Your task to perform on an android device: clear all cookies in the chrome app Image 0: 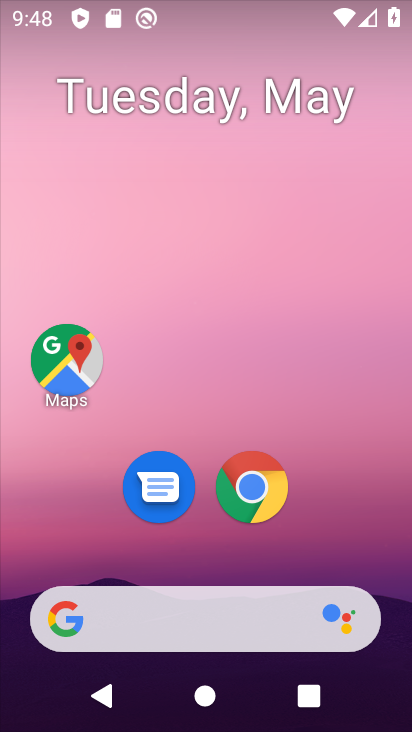
Step 0: drag from (213, 541) to (284, 96)
Your task to perform on an android device: clear all cookies in the chrome app Image 1: 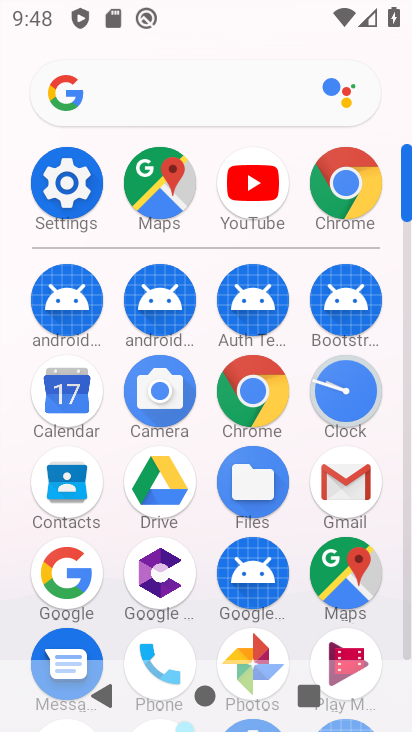
Step 1: click (345, 177)
Your task to perform on an android device: clear all cookies in the chrome app Image 2: 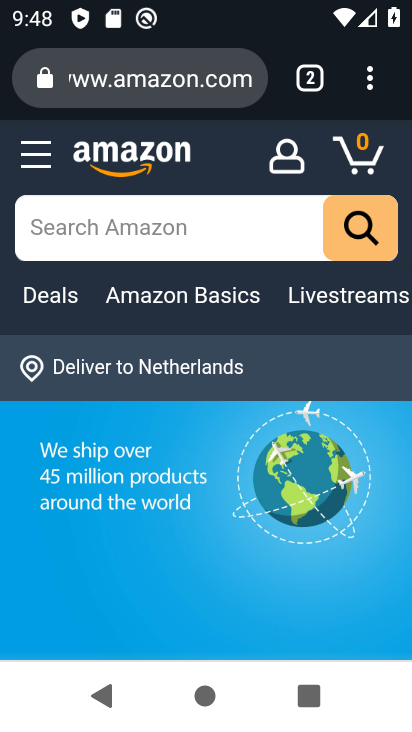
Step 2: drag from (243, 573) to (255, 442)
Your task to perform on an android device: clear all cookies in the chrome app Image 3: 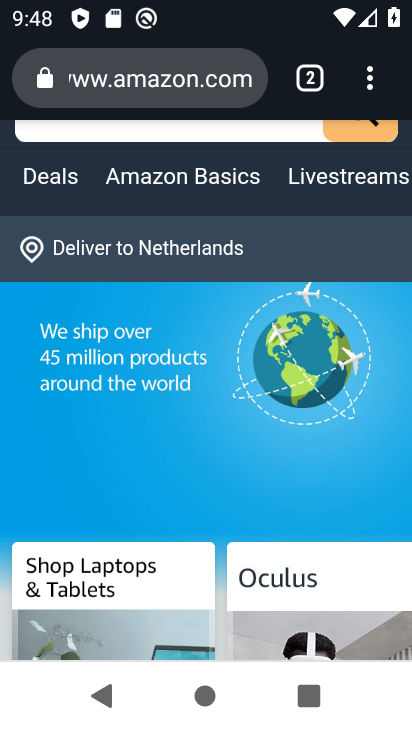
Step 3: click (361, 77)
Your task to perform on an android device: clear all cookies in the chrome app Image 4: 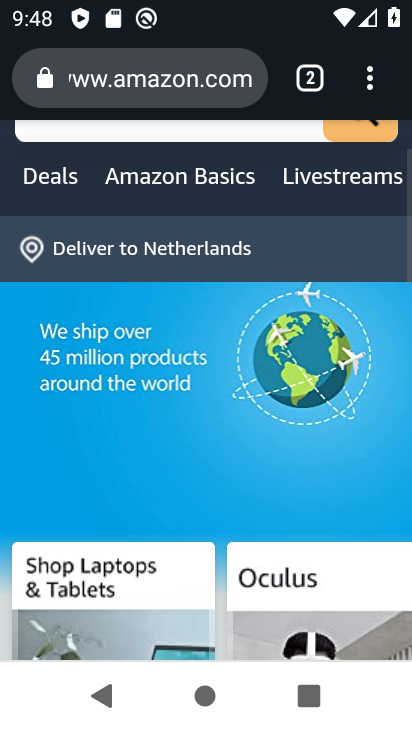
Step 4: click (358, 87)
Your task to perform on an android device: clear all cookies in the chrome app Image 5: 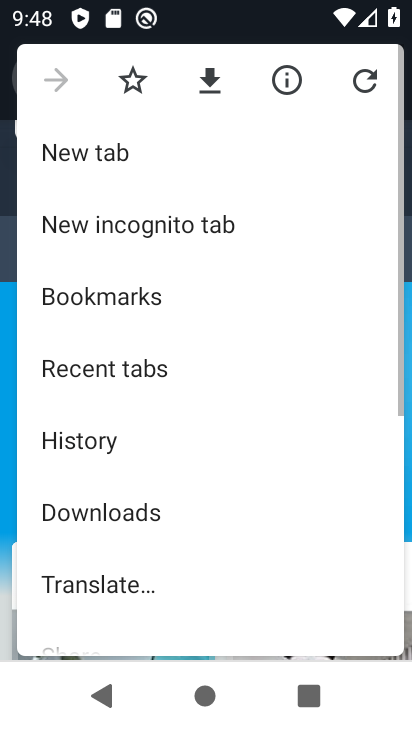
Step 5: drag from (179, 521) to (197, 331)
Your task to perform on an android device: clear all cookies in the chrome app Image 6: 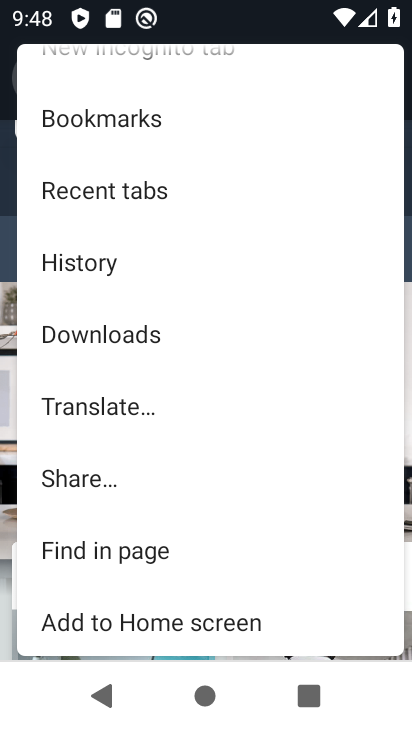
Step 6: drag from (152, 576) to (246, 268)
Your task to perform on an android device: clear all cookies in the chrome app Image 7: 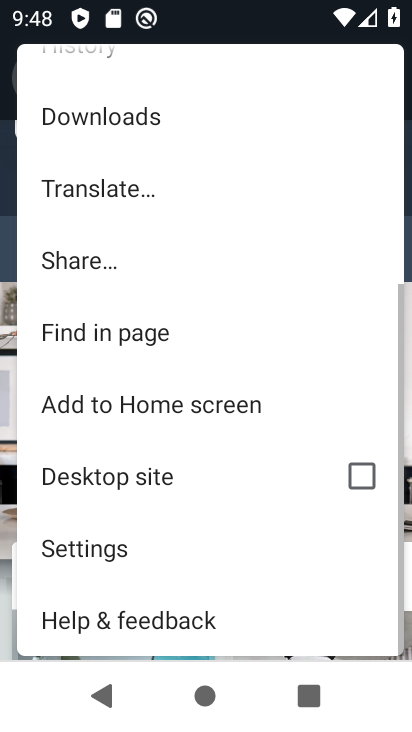
Step 7: click (138, 545)
Your task to perform on an android device: clear all cookies in the chrome app Image 8: 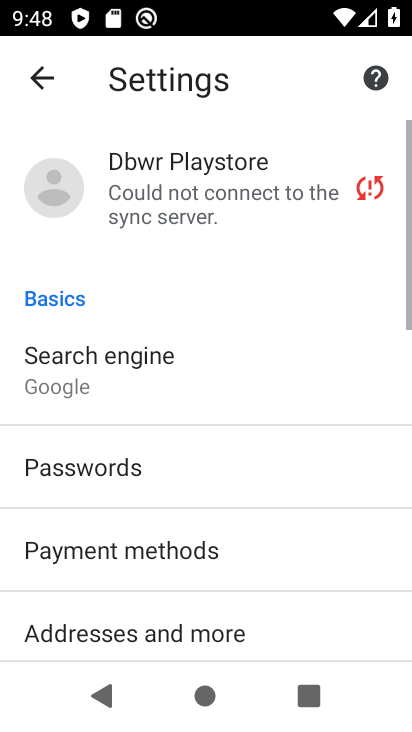
Step 8: drag from (242, 567) to (338, 14)
Your task to perform on an android device: clear all cookies in the chrome app Image 9: 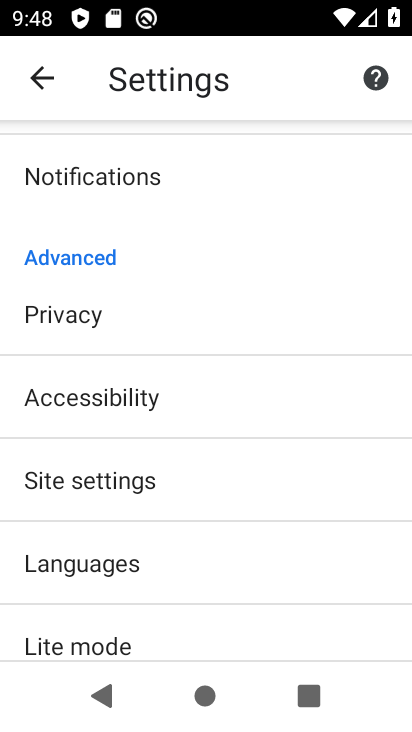
Step 9: drag from (151, 567) to (214, 244)
Your task to perform on an android device: clear all cookies in the chrome app Image 10: 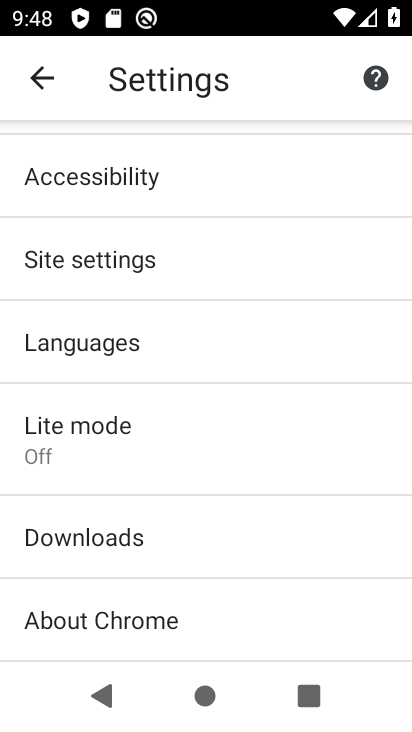
Step 10: drag from (136, 331) to (270, 716)
Your task to perform on an android device: clear all cookies in the chrome app Image 11: 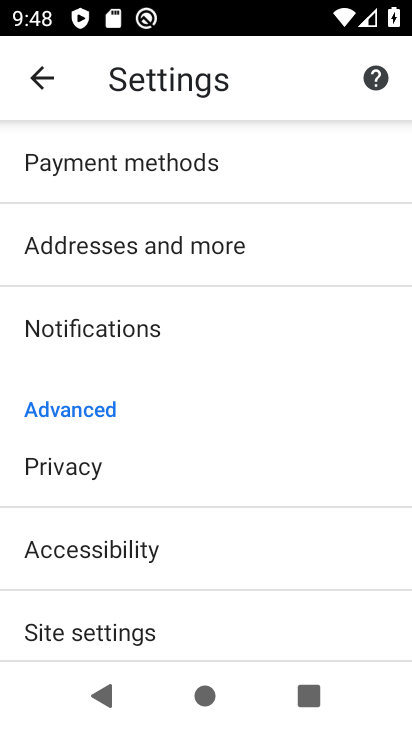
Step 11: click (31, 74)
Your task to perform on an android device: clear all cookies in the chrome app Image 12: 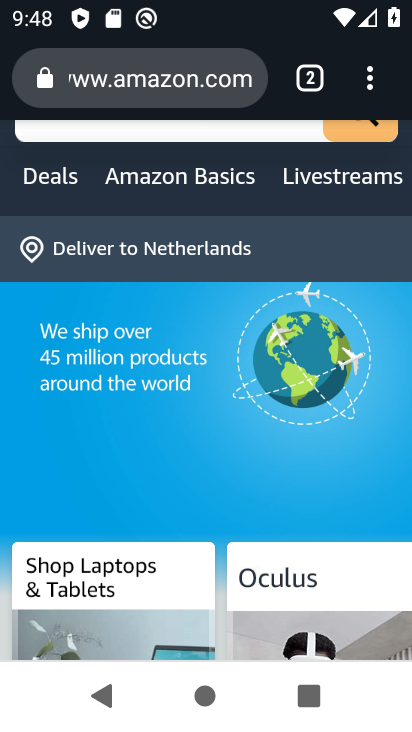
Step 12: click (369, 75)
Your task to perform on an android device: clear all cookies in the chrome app Image 13: 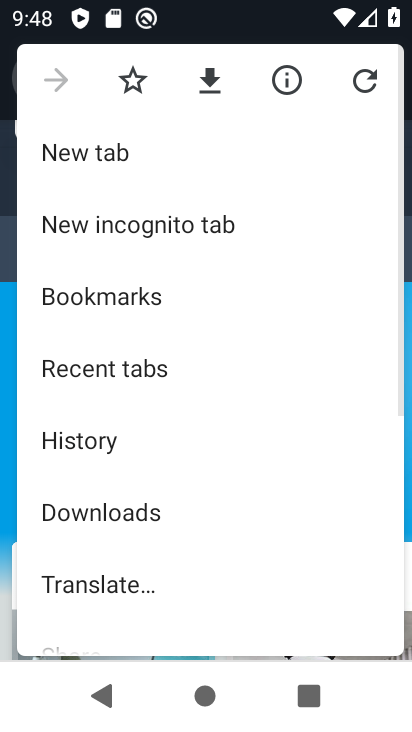
Step 13: click (80, 449)
Your task to perform on an android device: clear all cookies in the chrome app Image 14: 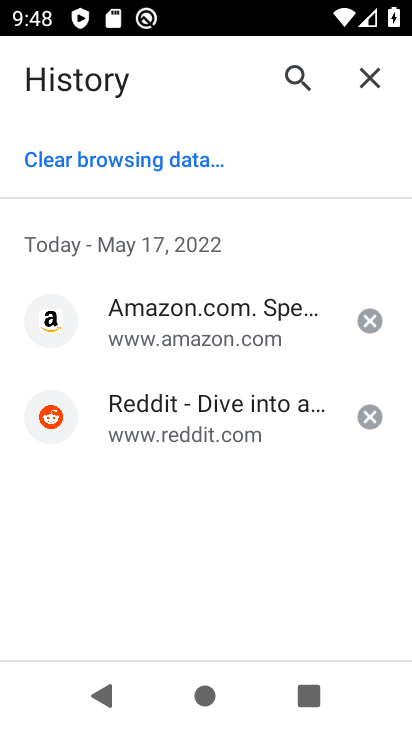
Step 14: click (104, 145)
Your task to perform on an android device: clear all cookies in the chrome app Image 15: 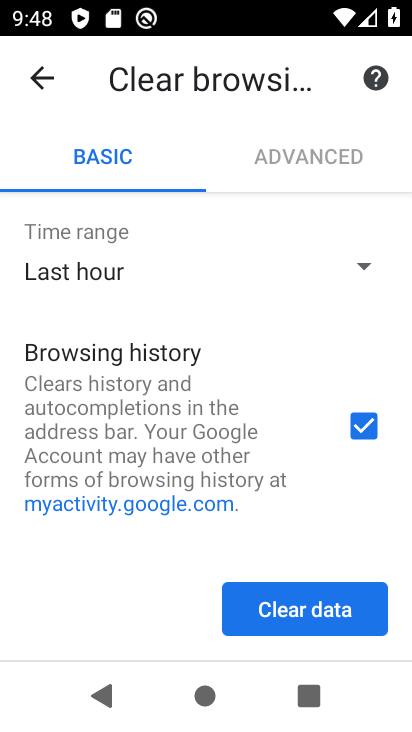
Step 15: click (293, 603)
Your task to perform on an android device: clear all cookies in the chrome app Image 16: 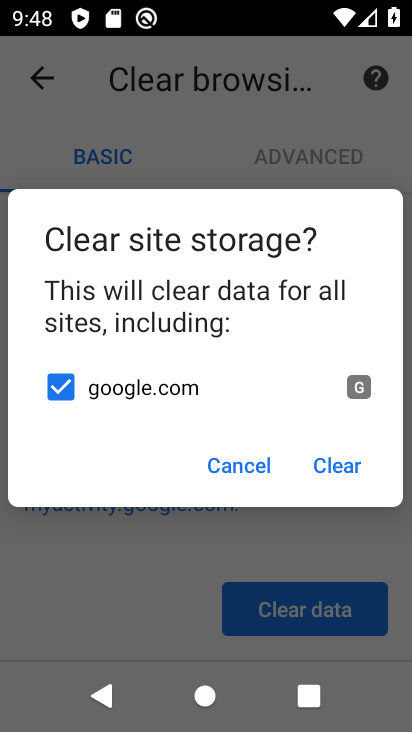
Step 16: click (229, 468)
Your task to perform on an android device: clear all cookies in the chrome app Image 17: 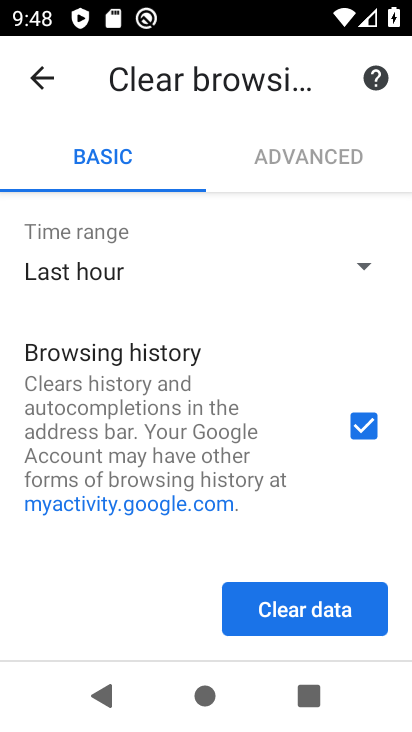
Step 17: click (355, 265)
Your task to perform on an android device: clear all cookies in the chrome app Image 18: 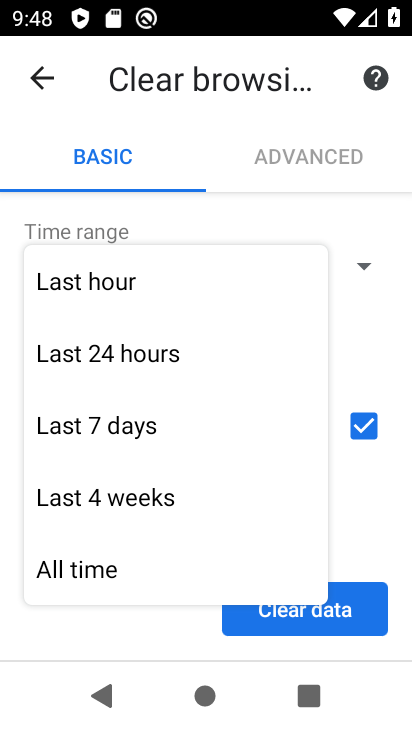
Step 18: click (110, 558)
Your task to perform on an android device: clear all cookies in the chrome app Image 19: 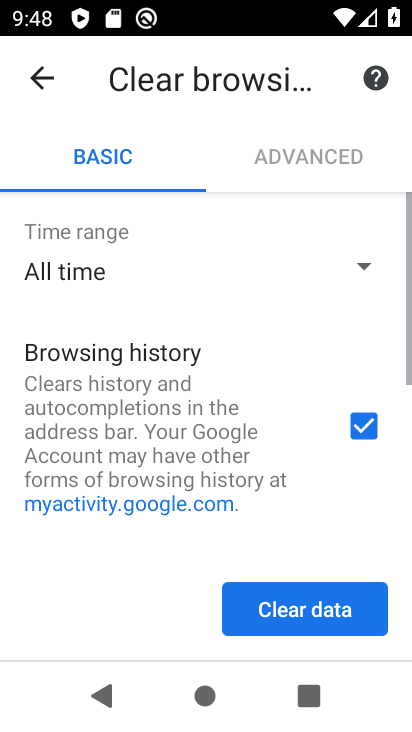
Step 19: click (365, 422)
Your task to perform on an android device: clear all cookies in the chrome app Image 20: 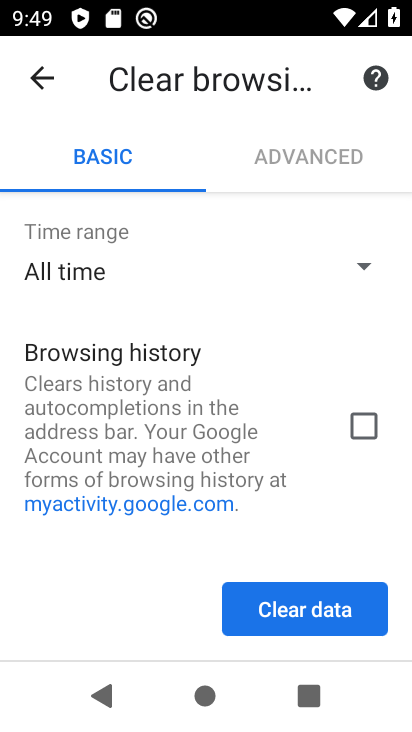
Step 20: drag from (189, 516) to (256, 37)
Your task to perform on an android device: clear all cookies in the chrome app Image 21: 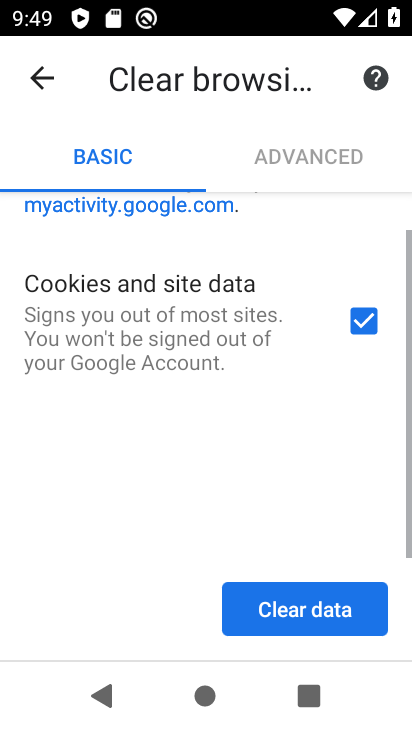
Step 21: drag from (187, 605) to (257, 345)
Your task to perform on an android device: clear all cookies in the chrome app Image 22: 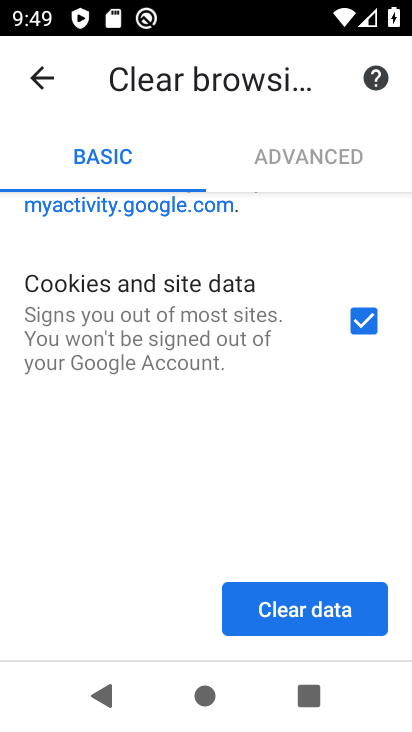
Step 22: drag from (136, 538) to (176, 330)
Your task to perform on an android device: clear all cookies in the chrome app Image 23: 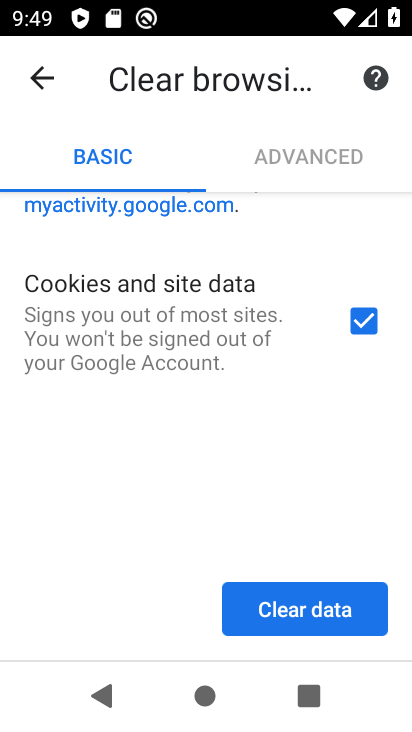
Step 23: drag from (223, 520) to (12, 205)
Your task to perform on an android device: clear all cookies in the chrome app Image 24: 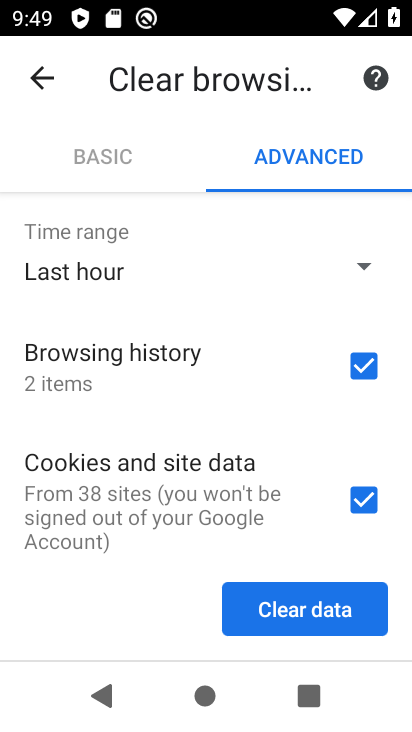
Step 24: drag from (223, 444) to (236, 273)
Your task to perform on an android device: clear all cookies in the chrome app Image 25: 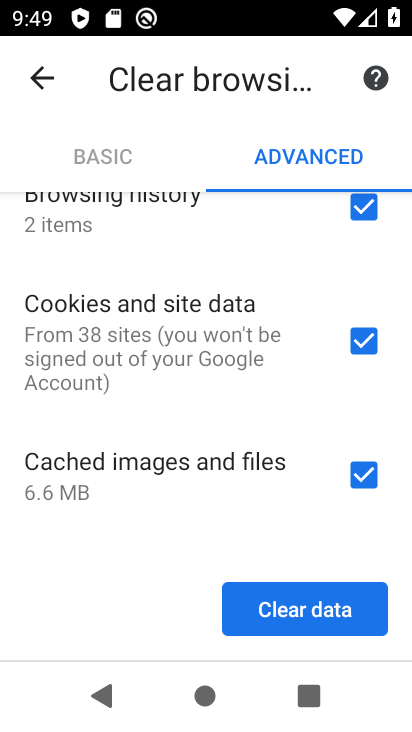
Step 25: drag from (221, 358) to (278, 505)
Your task to perform on an android device: clear all cookies in the chrome app Image 26: 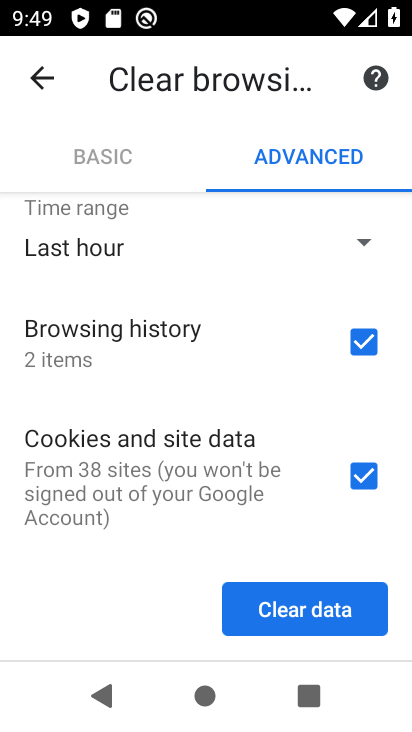
Step 26: click (367, 346)
Your task to perform on an android device: clear all cookies in the chrome app Image 27: 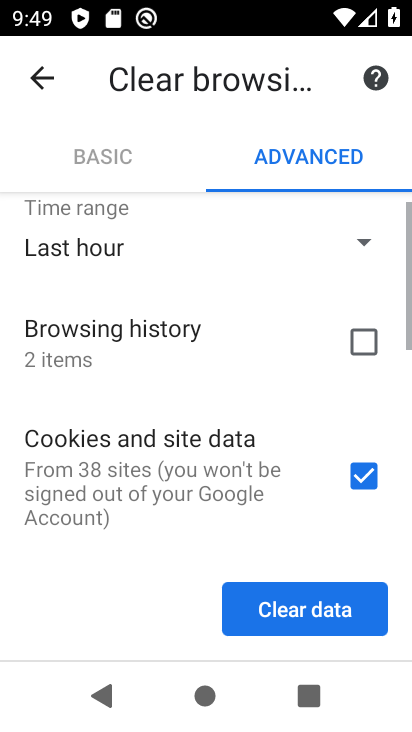
Step 27: click (296, 592)
Your task to perform on an android device: clear all cookies in the chrome app Image 28: 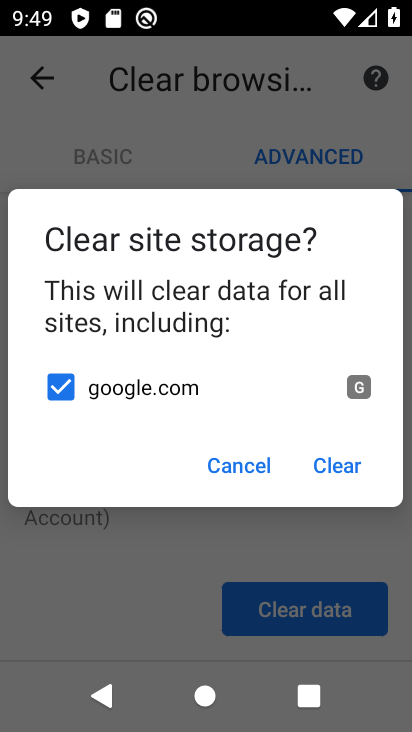
Step 28: click (335, 474)
Your task to perform on an android device: clear all cookies in the chrome app Image 29: 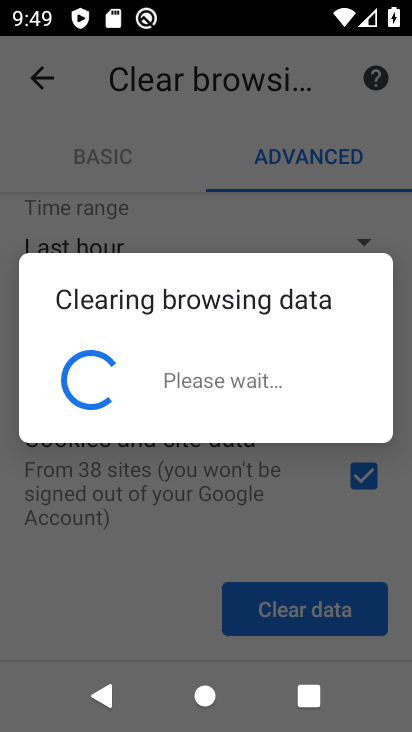
Step 29: task complete